Your task to perform on an android device: Open the calendar and show me this week's events? Image 0: 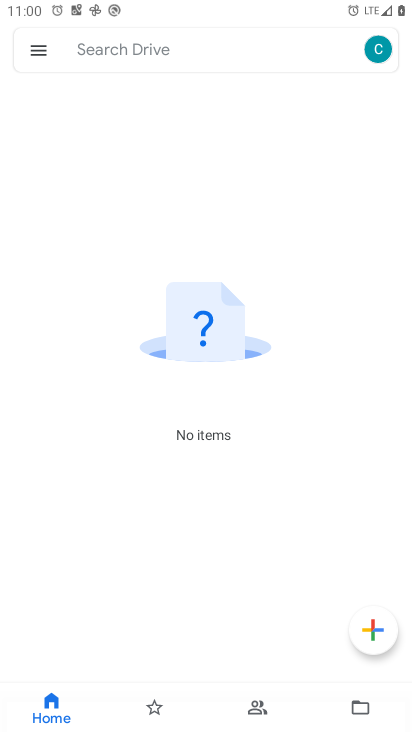
Step 0: press home button
Your task to perform on an android device: Open the calendar and show me this week's events? Image 1: 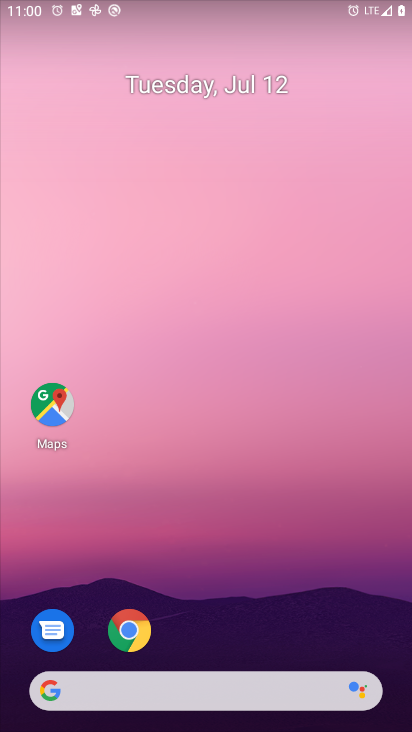
Step 1: drag from (293, 605) to (281, 156)
Your task to perform on an android device: Open the calendar and show me this week's events? Image 2: 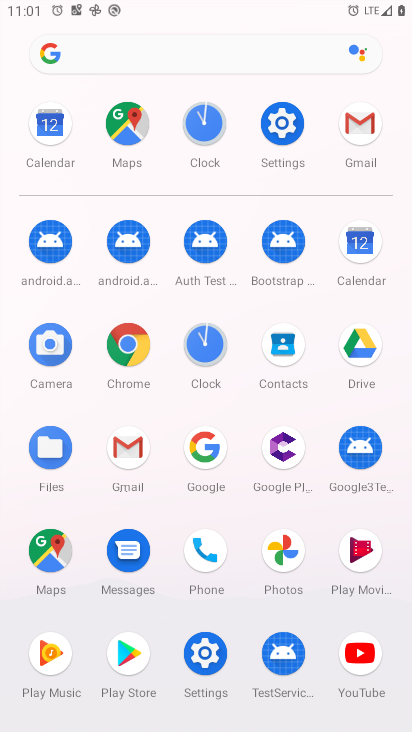
Step 2: click (353, 242)
Your task to perform on an android device: Open the calendar and show me this week's events? Image 3: 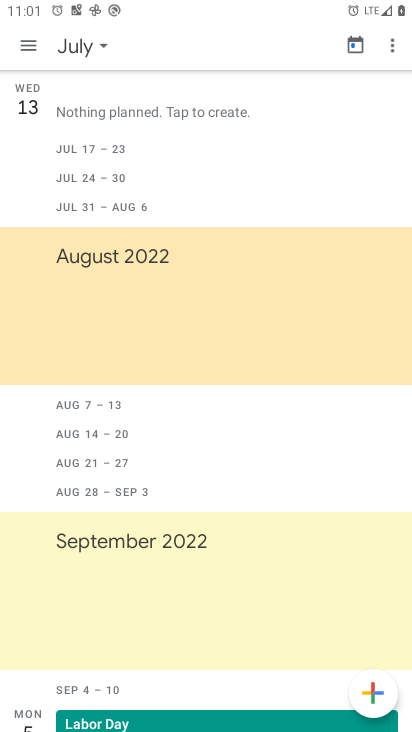
Step 3: click (29, 44)
Your task to perform on an android device: Open the calendar and show me this week's events? Image 4: 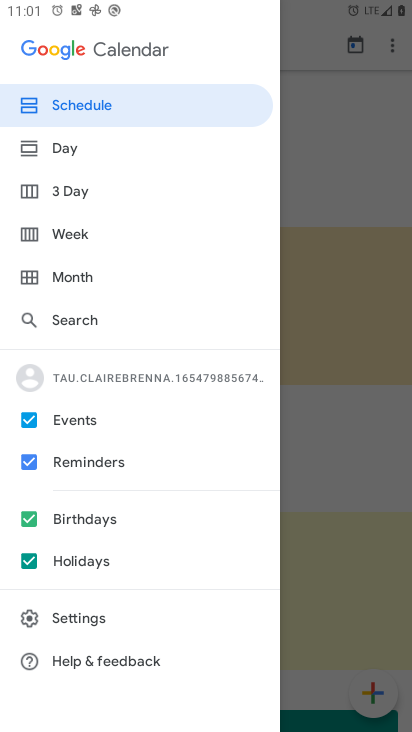
Step 4: click (71, 238)
Your task to perform on an android device: Open the calendar and show me this week's events? Image 5: 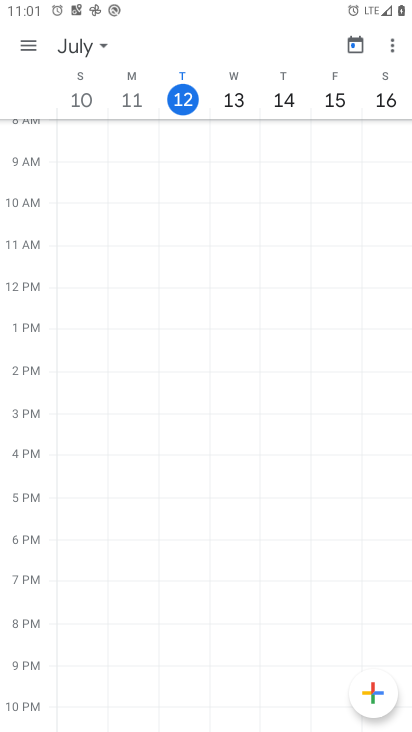
Step 5: task complete